Your task to perform on an android device: toggle notifications settings in the gmail app Image 0: 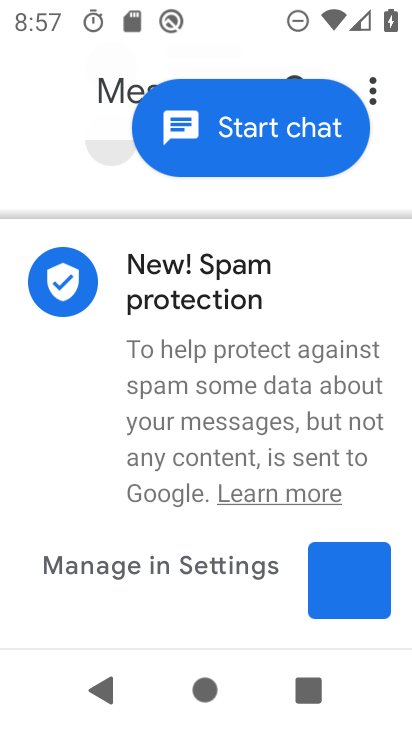
Step 0: press home button
Your task to perform on an android device: toggle notifications settings in the gmail app Image 1: 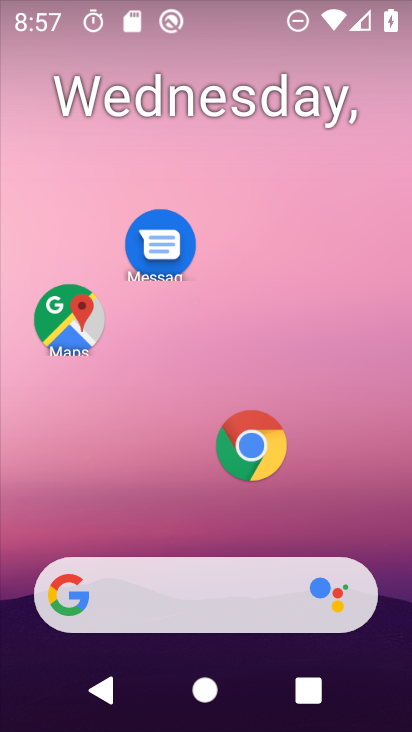
Step 1: drag from (205, 526) to (233, 41)
Your task to perform on an android device: toggle notifications settings in the gmail app Image 2: 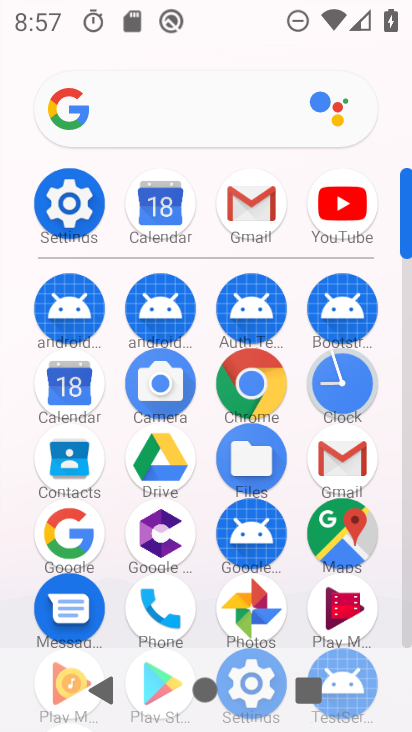
Step 2: click (331, 447)
Your task to perform on an android device: toggle notifications settings in the gmail app Image 3: 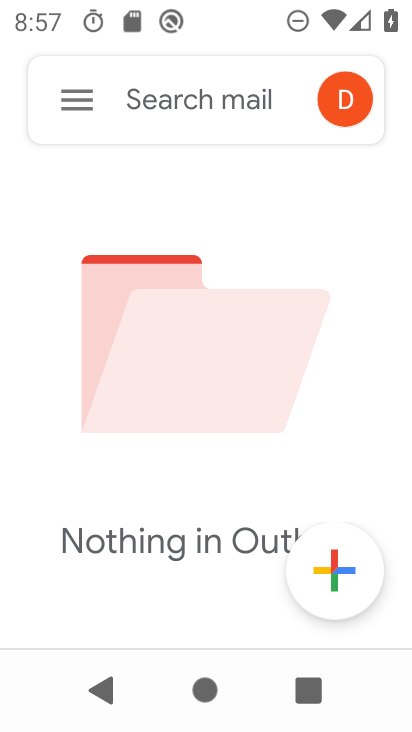
Step 3: click (77, 102)
Your task to perform on an android device: toggle notifications settings in the gmail app Image 4: 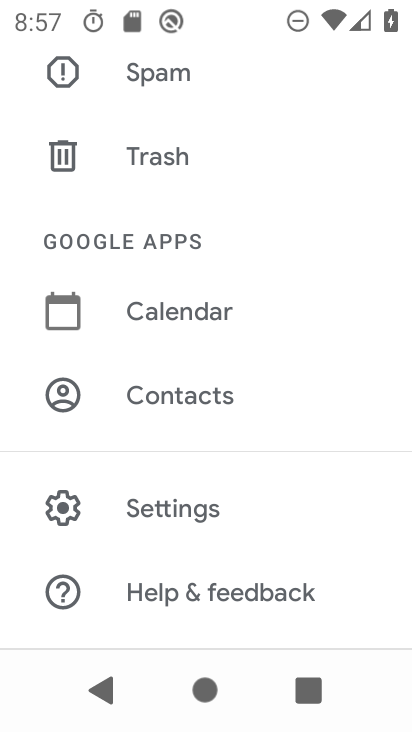
Step 4: click (152, 517)
Your task to perform on an android device: toggle notifications settings in the gmail app Image 5: 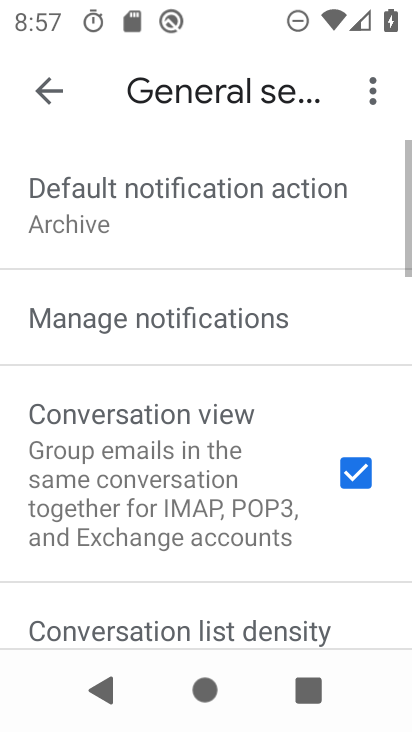
Step 5: click (195, 285)
Your task to perform on an android device: toggle notifications settings in the gmail app Image 6: 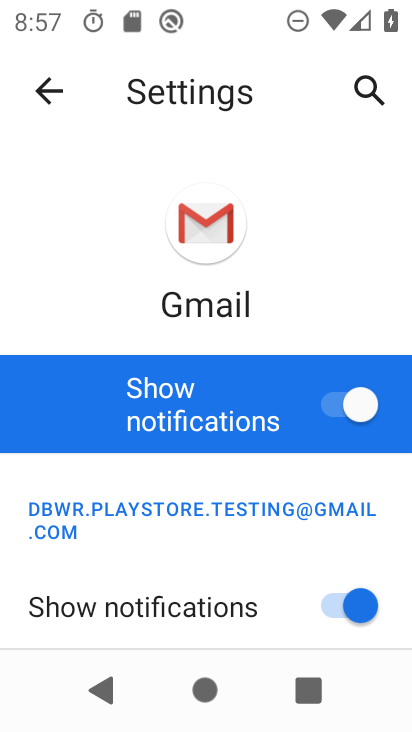
Step 6: click (336, 396)
Your task to perform on an android device: toggle notifications settings in the gmail app Image 7: 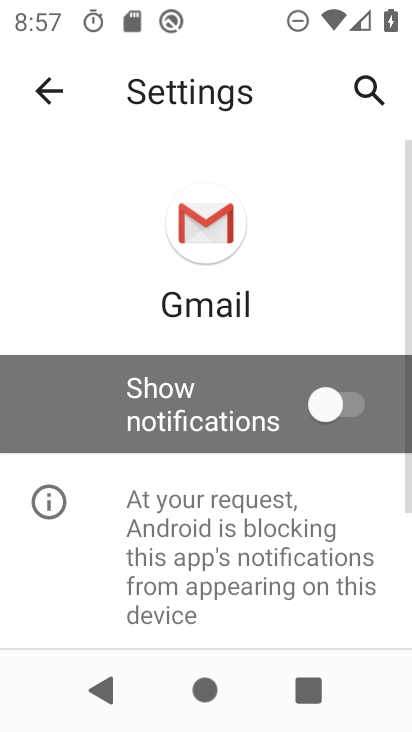
Step 7: task complete